Your task to perform on an android device: find photos in the google photos app Image 0: 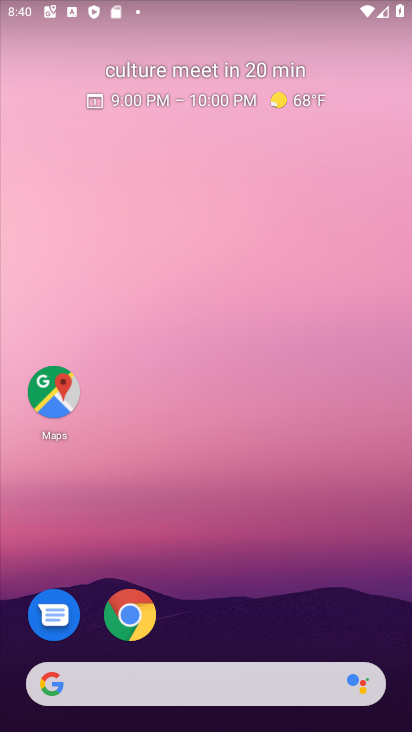
Step 0: drag from (394, 717) to (329, 113)
Your task to perform on an android device: find photos in the google photos app Image 1: 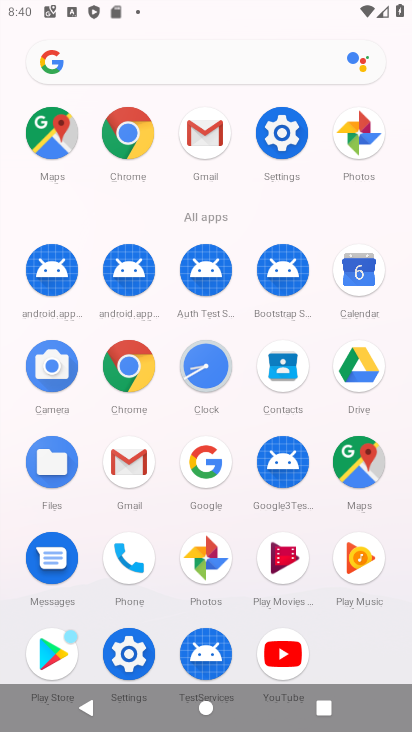
Step 1: click (216, 555)
Your task to perform on an android device: find photos in the google photos app Image 2: 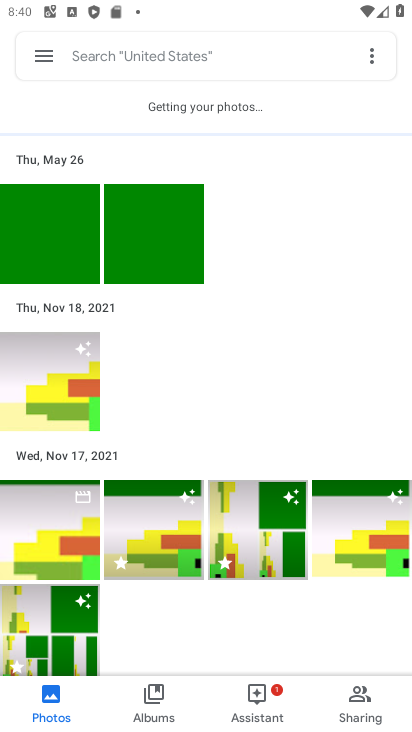
Step 2: click (247, 526)
Your task to perform on an android device: find photos in the google photos app Image 3: 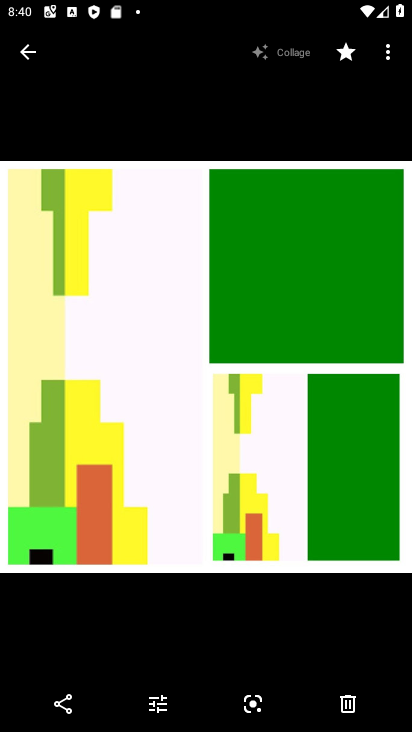
Step 3: click (20, 52)
Your task to perform on an android device: find photos in the google photos app Image 4: 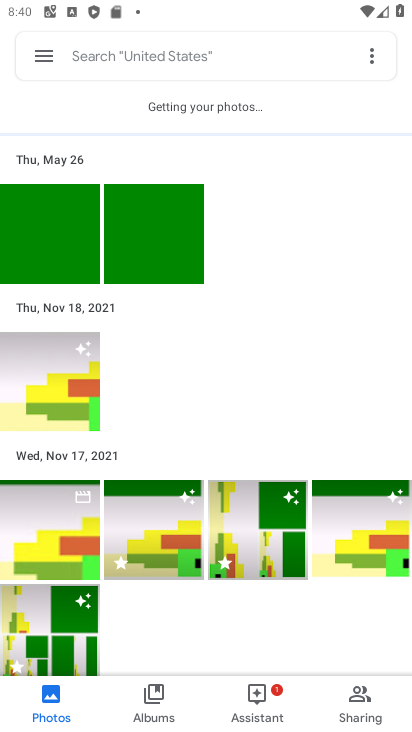
Step 4: click (62, 606)
Your task to perform on an android device: find photos in the google photos app Image 5: 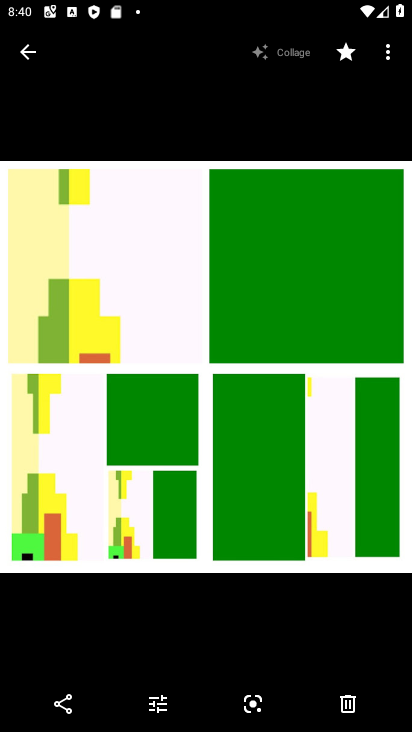
Step 5: click (32, 59)
Your task to perform on an android device: find photos in the google photos app Image 6: 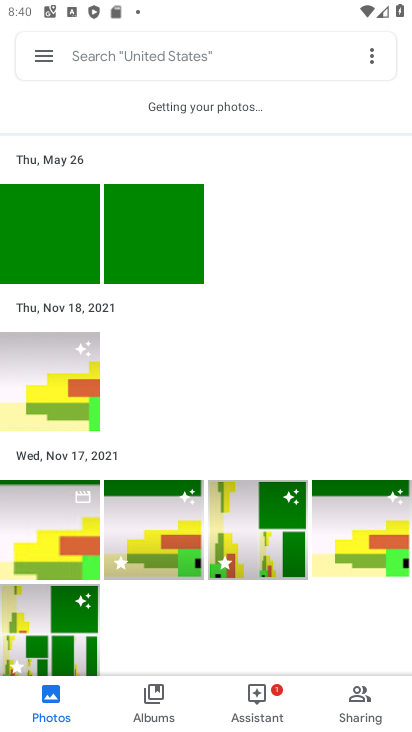
Step 6: task complete